Your task to perform on an android device: Search for Mexican restaurants on Maps Image 0: 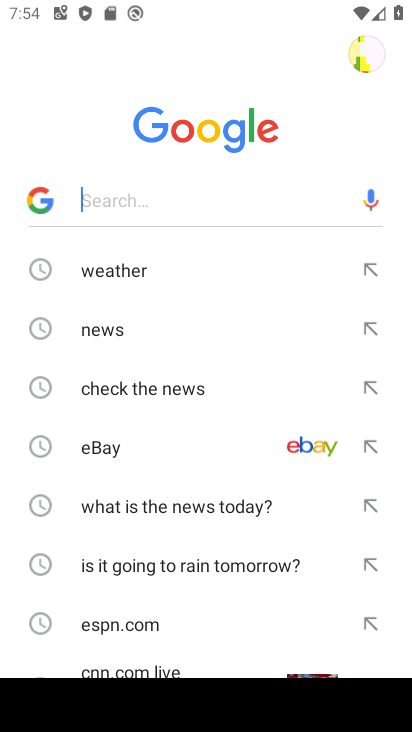
Step 0: press home button
Your task to perform on an android device: Search for Mexican restaurants on Maps Image 1: 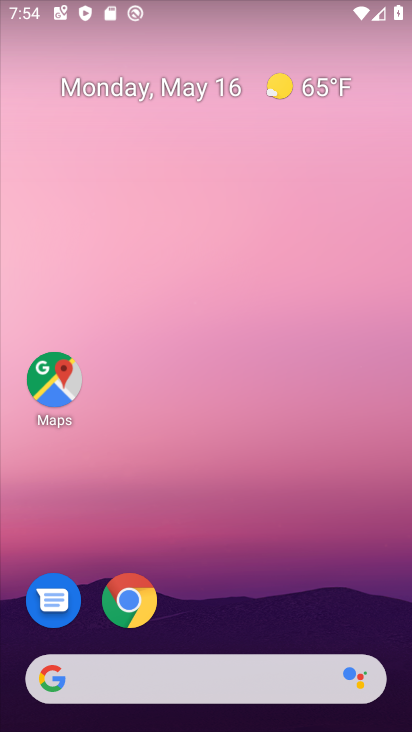
Step 1: drag from (210, 618) to (297, 247)
Your task to perform on an android device: Search for Mexican restaurants on Maps Image 2: 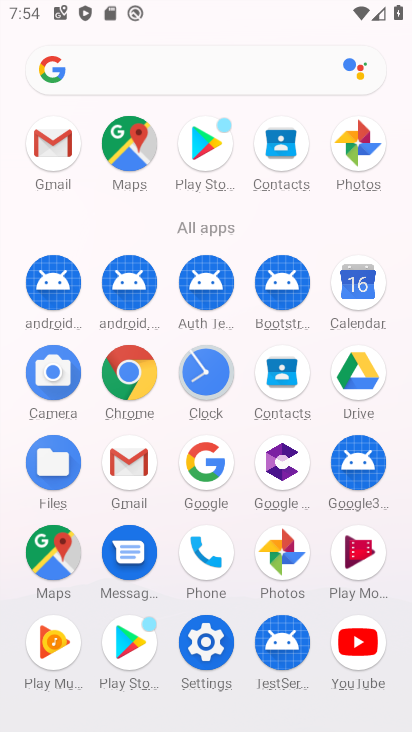
Step 2: click (32, 570)
Your task to perform on an android device: Search for Mexican restaurants on Maps Image 3: 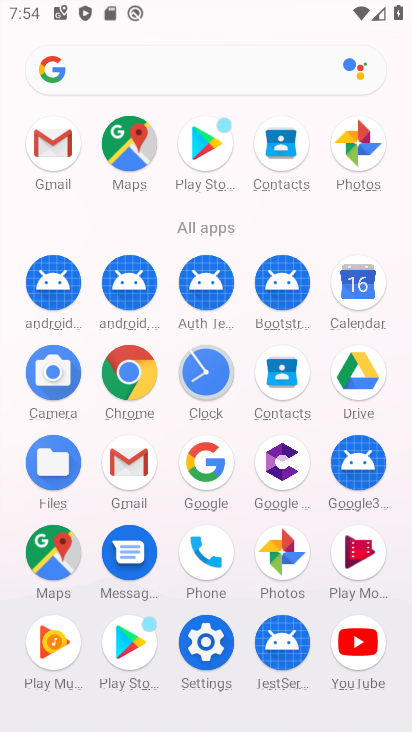
Step 3: click (32, 570)
Your task to perform on an android device: Search for Mexican restaurants on Maps Image 4: 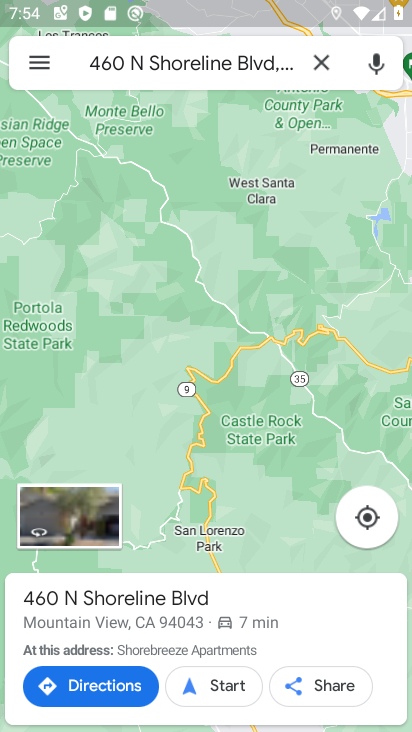
Step 4: click (320, 61)
Your task to perform on an android device: Search for Mexican restaurants on Maps Image 5: 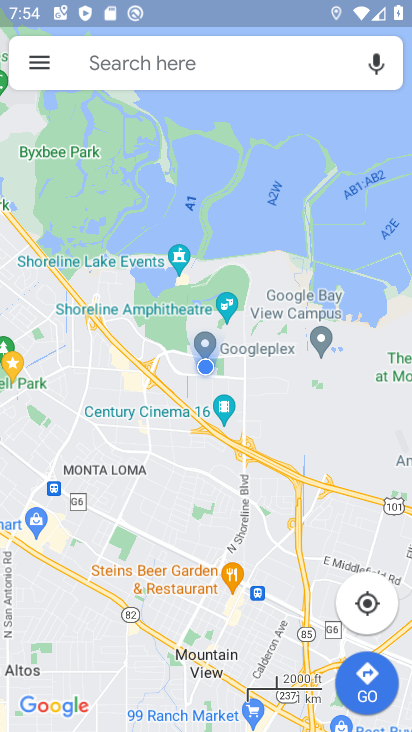
Step 5: click (219, 64)
Your task to perform on an android device: Search for Mexican restaurants on Maps Image 6: 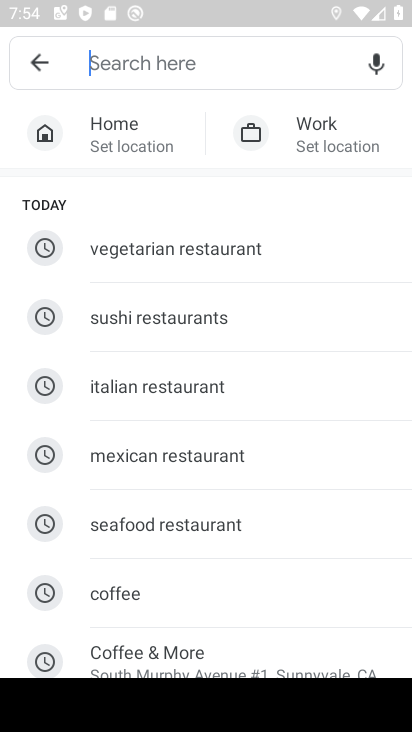
Step 6: click (146, 457)
Your task to perform on an android device: Search for Mexican restaurants on Maps Image 7: 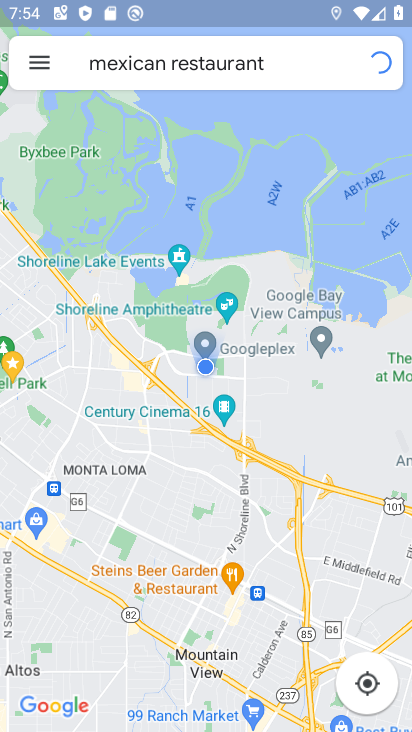
Step 7: task complete